Your task to perform on an android device: Open privacy settings Image 0: 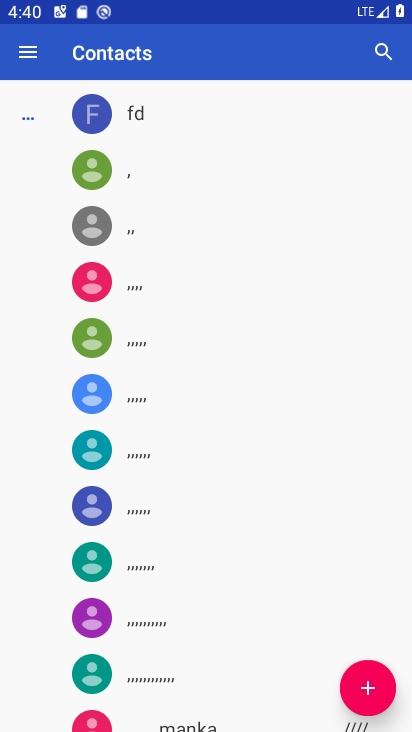
Step 0: press home button
Your task to perform on an android device: Open privacy settings Image 1: 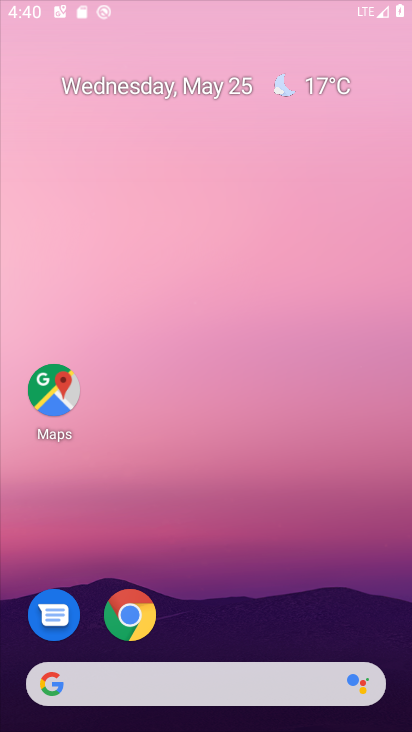
Step 1: drag from (226, 582) to (186, 31)
Your task to perform on an android device: Open privacy settings Image 2: 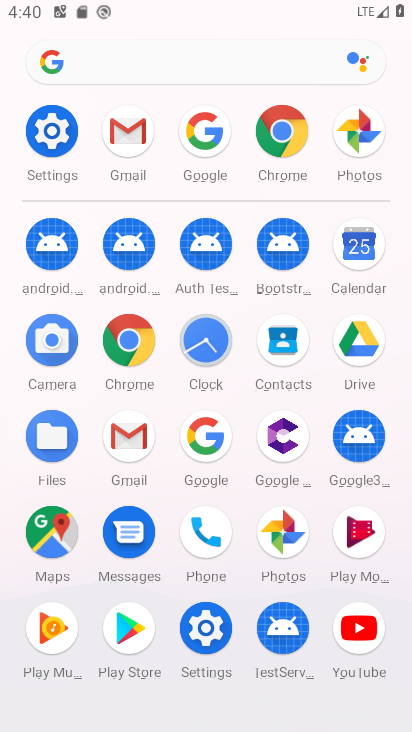
Step 2: click (54, 126)
Your task to perform on an android device: Open privacy settings Image 3: 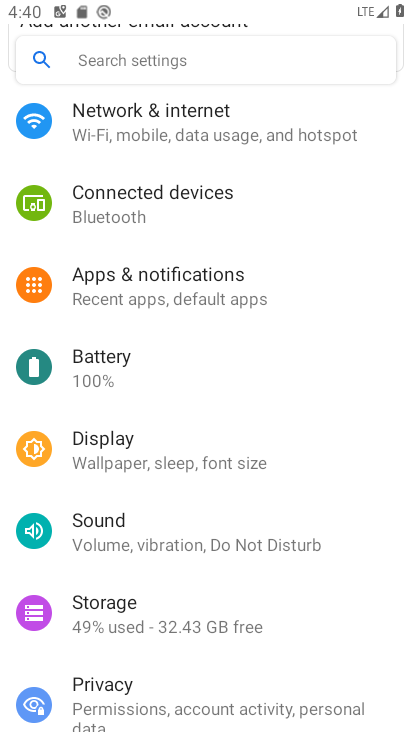
Step 3: click (184, 692)
Your task to perform on an android device: Open privacy settings Image 4: 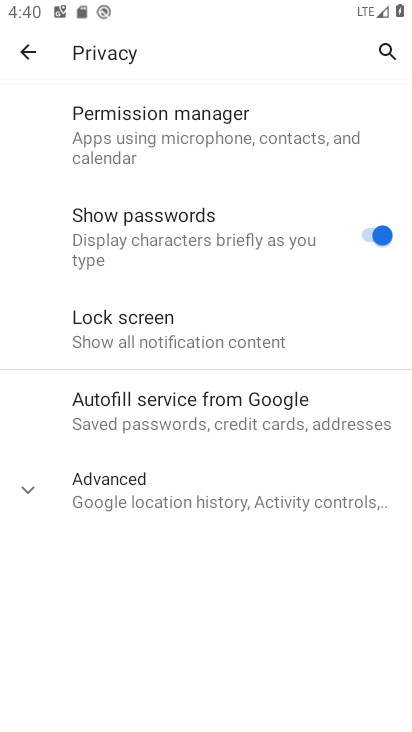
Step 4: task complete